Your task to perform on an android device: turn off javascript in the chrome app Image 0: 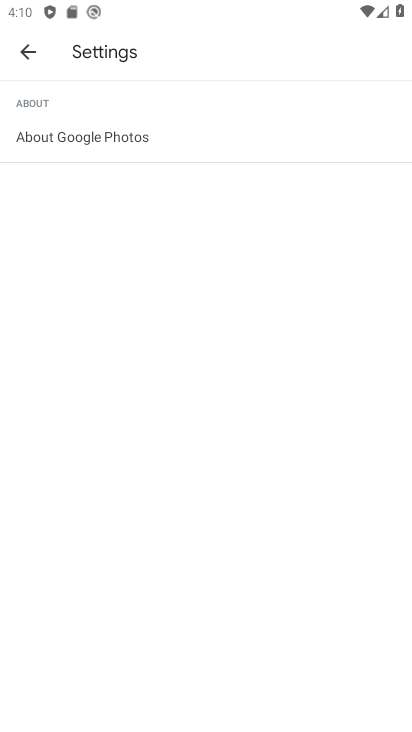
Step 0: press home button
Your task to perform on an android device: turn off javascript in the chrome app Image 1: 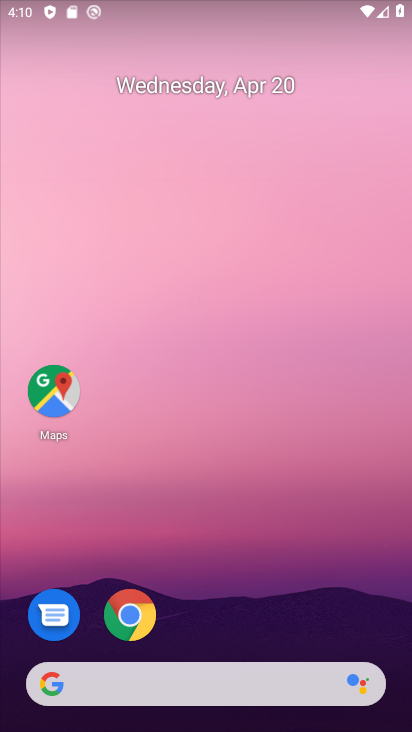
Step 1: click (119, 612)
Your task to perform on an android device: turn off javascript in the chrome app Image 2: 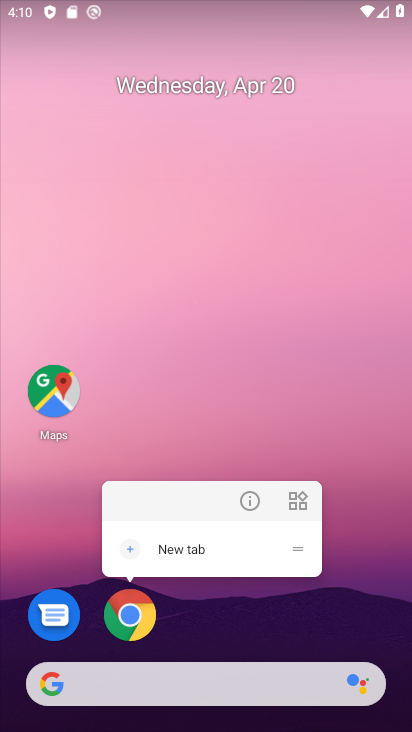
Step 2: click (131, 610)
Your task to perform on an android device: turn off javascript in the chrome app Image 3: 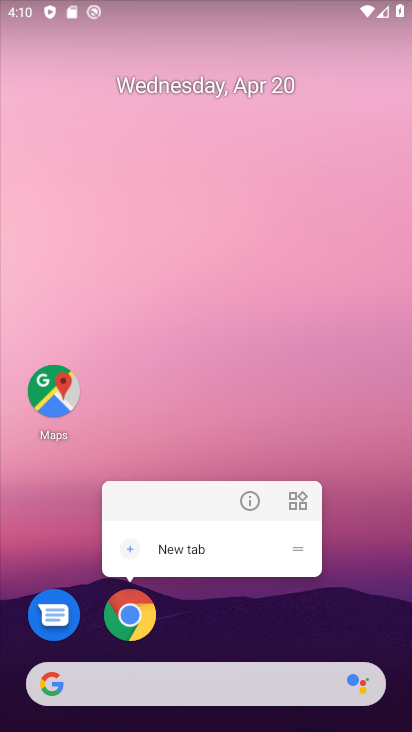
Step 3: click (134, 611)
Your task to perform on an android device: turn off javascript in the chrome app Image 4: 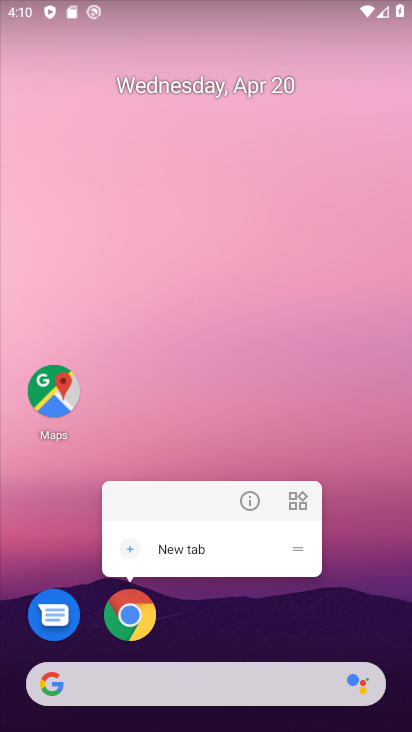
Step 4: click (139, 611)
Your task to perform on an android device: turn off javascript in the chrome app Image 5: 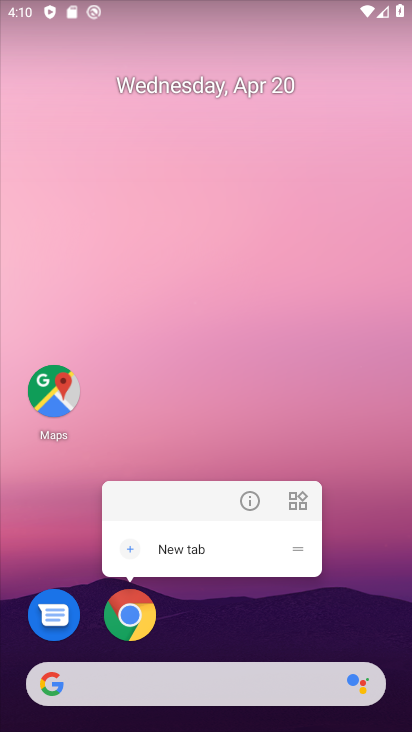
Step 5: click (139, 601)
Your task to perform on an android device: turn off javascript in the chrome app Image 6: 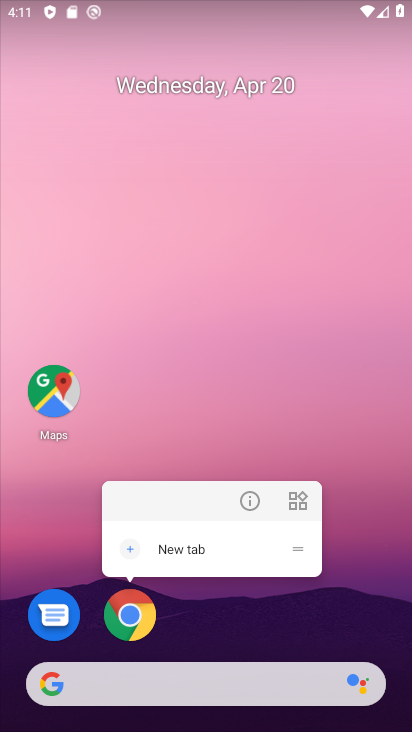
Step 6: click (129, 617)
Your task to perform on an android device: turn off javascript in the chrome app Image 7: 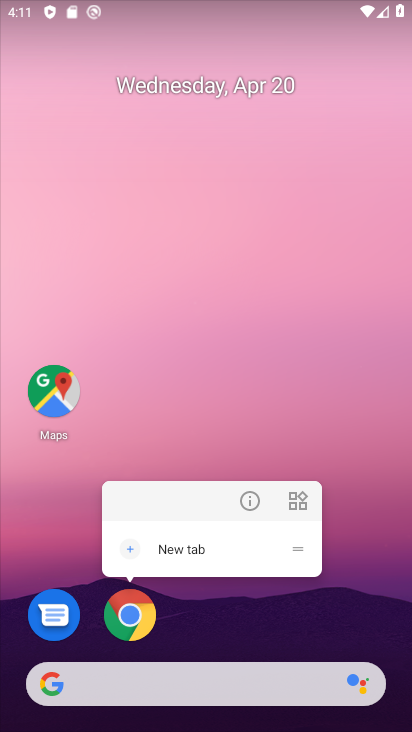
Step 7: click (128, 615)
Your task to perform on an android device: turn off javascript in the chrome app Image 8: 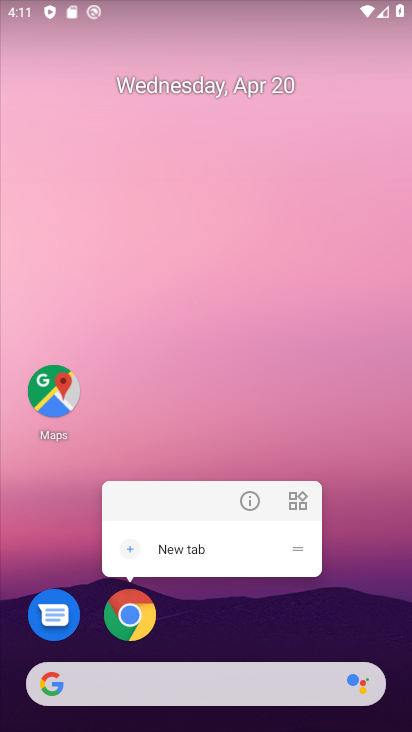
Step 8: click (269, 626)
Your task to perform on an android device: turn off javascript in the chrome app Image 9: 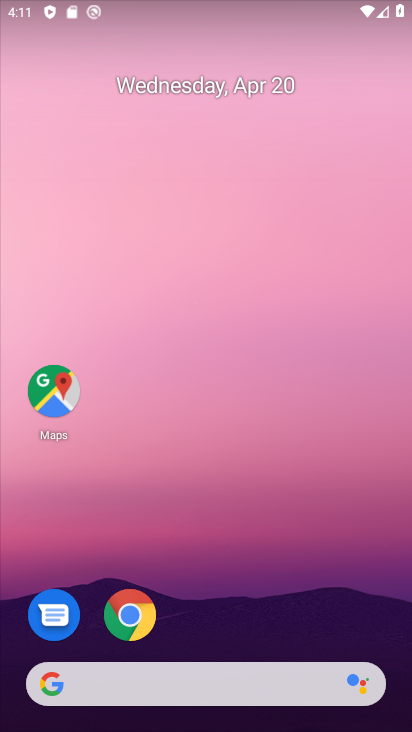
Step 9: drag from (255, 642) to (344, 6)
Your task to perform on an android device: turn off javascript in the chrome app Image 10: 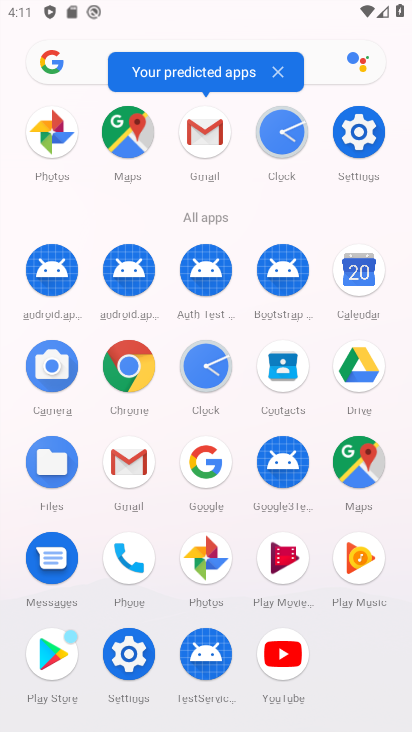
Step 10: click (127, 380)
Your task to perform on an android device: turn off javascript in the chrome app Image 11: 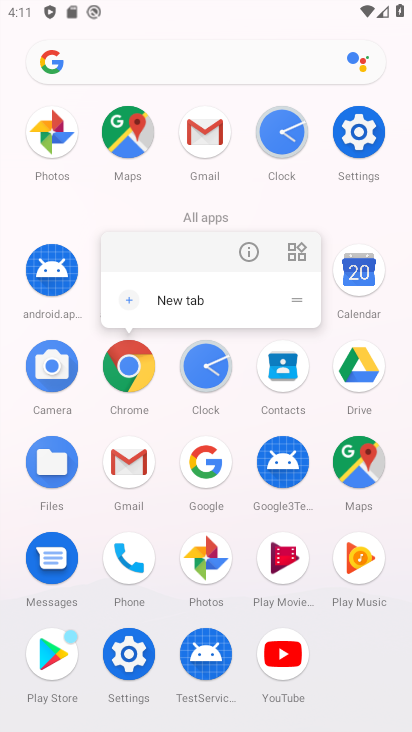
Step 11: click (128, 382)
Your task to perform on an android device: turn off javascript in the chrome app Image 12: 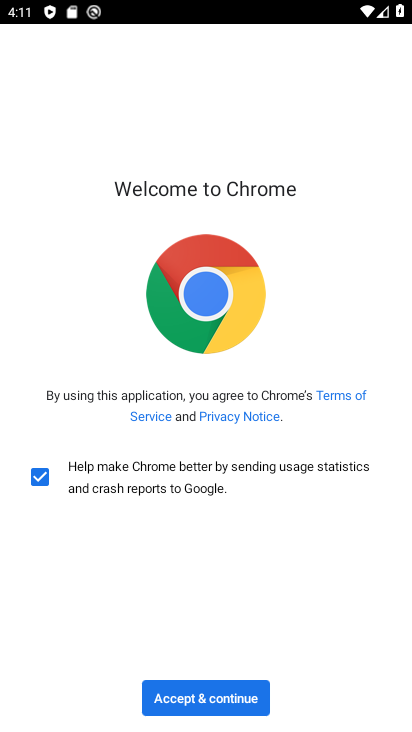
Step 12: click (219, 693)
Your task to perform on an android device: turn off javascript in the chrome app Image 13: 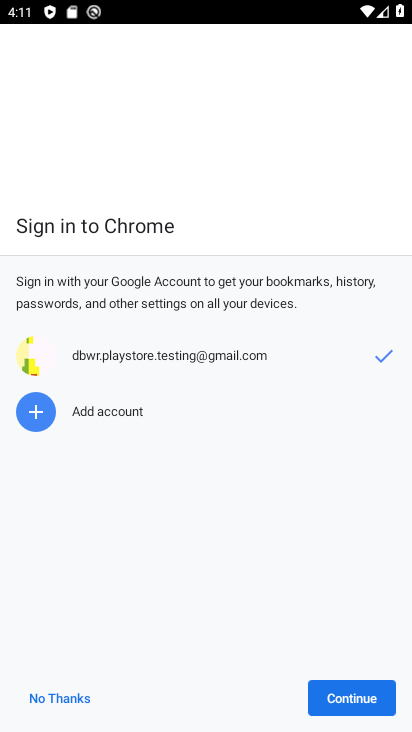
Step 13: click (347, 699)
Your task to perform on an android device: turn off javascript in the chrome app Image 14: 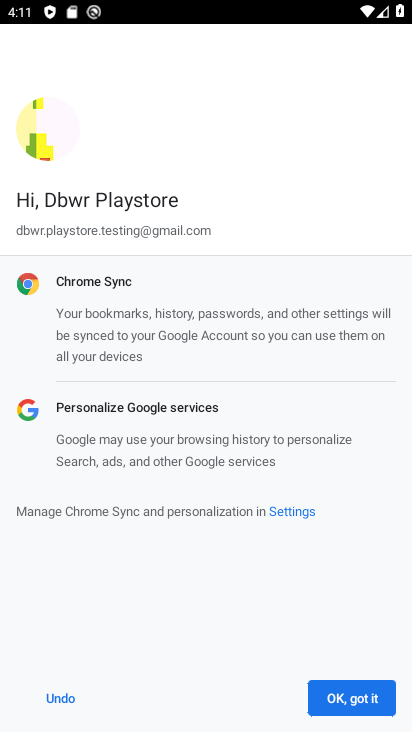
Step 14: click (333, 676)
Your task to perform on an android device: turn off javascript in the chrome app Image 15: 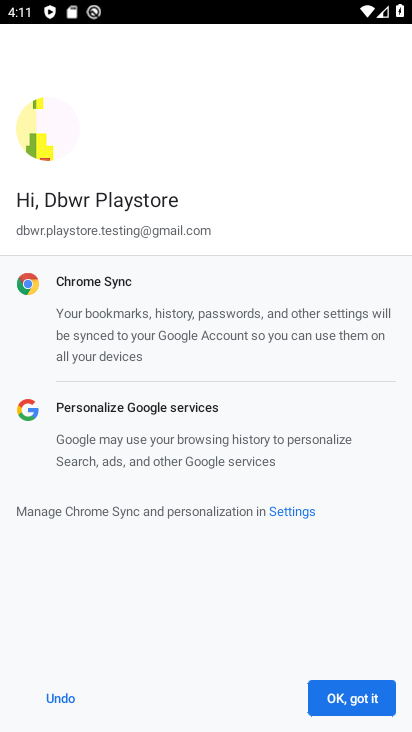
Step 15: click (329, 689)
Your task to perform on an android device: turn off javascript in the chrome app Image 16: 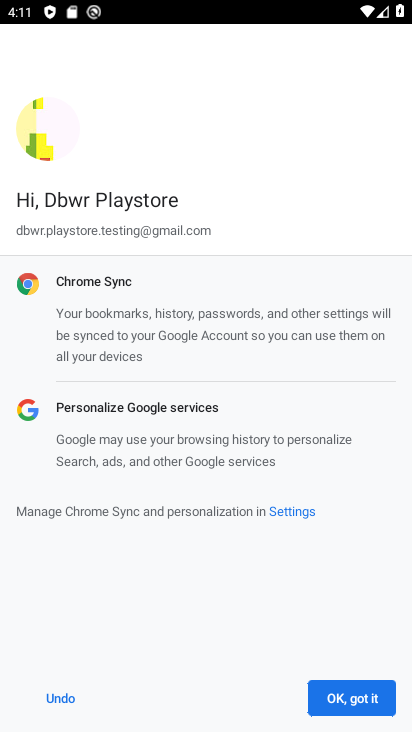
Step 16: click (339, 698)
Your task to perform on an android device: turn off javascript in the chrome app Image 17: 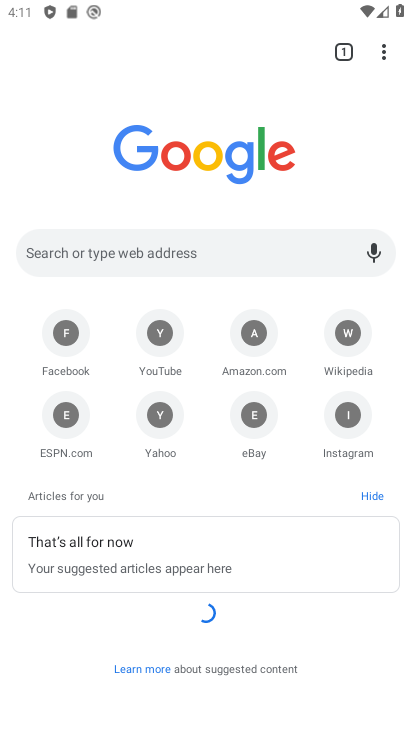
Step 17: click (384, 49)
Your task to perform on an android device: turn off javascript in the chrome app Image 18: 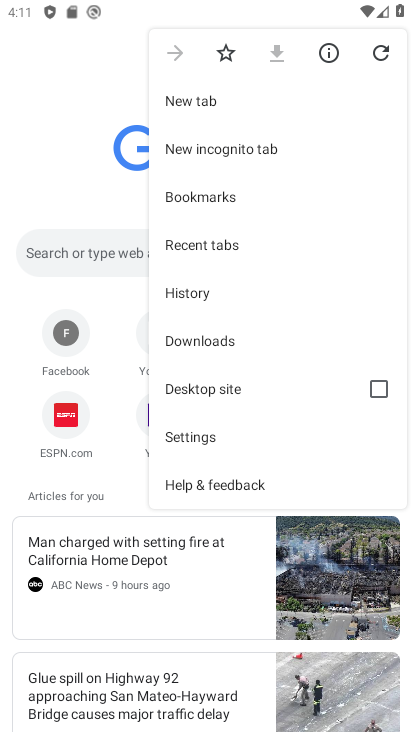
Step 18: click (198, 437)
Your task to perform on an android device: turn off javascript in the chrome app Image 19: 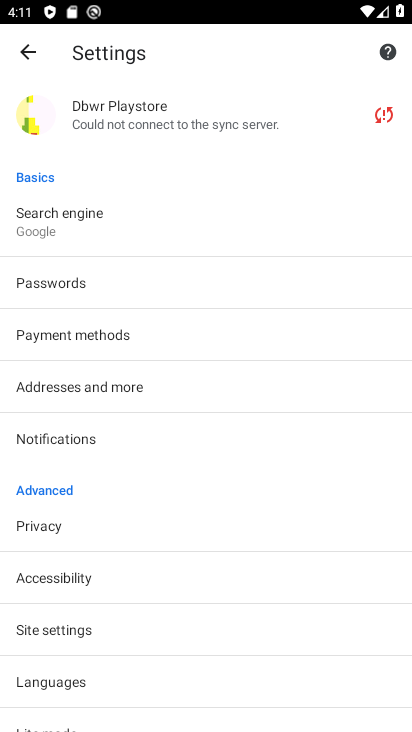
Step 19: click (94, 629)
Your task to perform on an android device: turn off javascript in the chrome app Image 20: 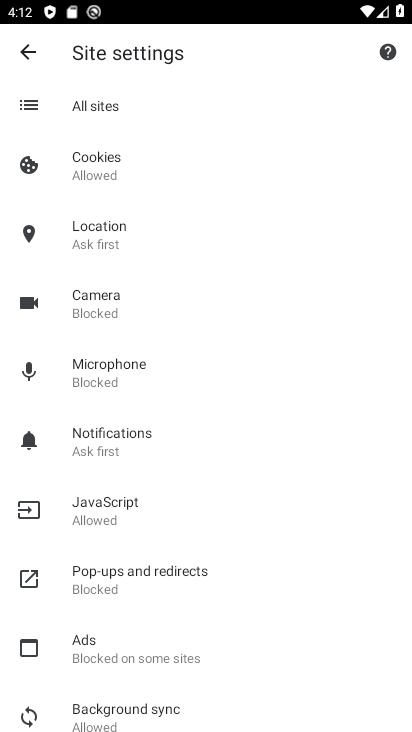
Step 20: click (108, 514)
Your task to perform on an android device: turn off javascript in the chrome app Image 21: 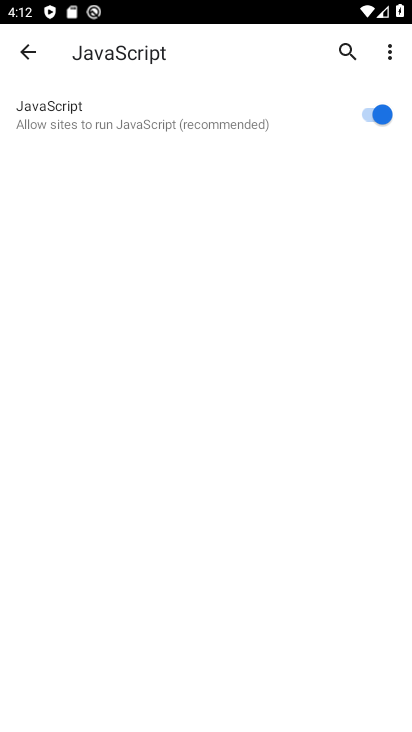
Step 21: click (365, 114)
Your task to perform on an android device: turn off javascript in the chrome app Image 22: 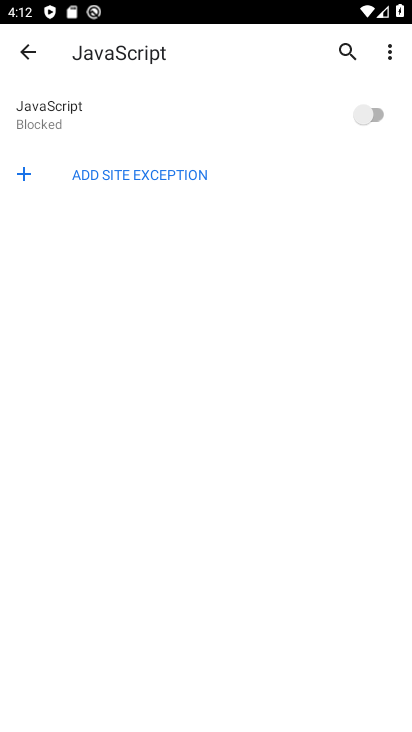
Step 22: task complete